Your task to perform on an android device: turn off notifications in google photos Image 0: 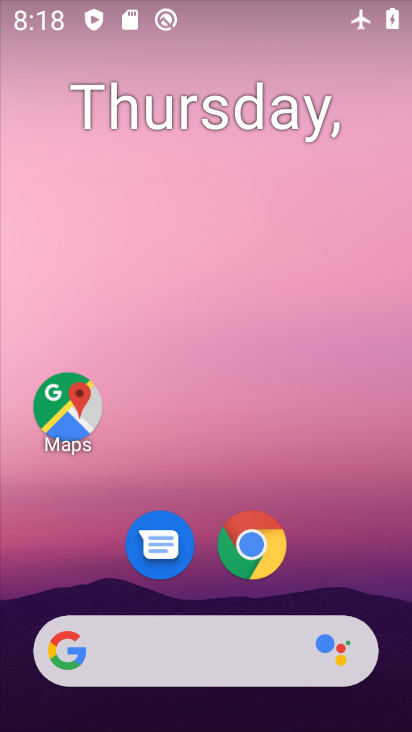
Step 0: drag from (200, 622) to (192, 289)
Your task to perform on an android device: turn off notifications in google photos Image 1: 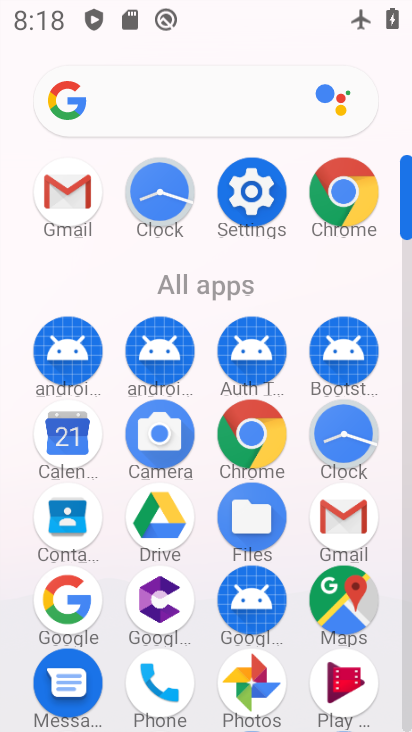
Step 1: click (255, 670)
Your task to perform on an android device: turn off notifications in google photos Image 2: 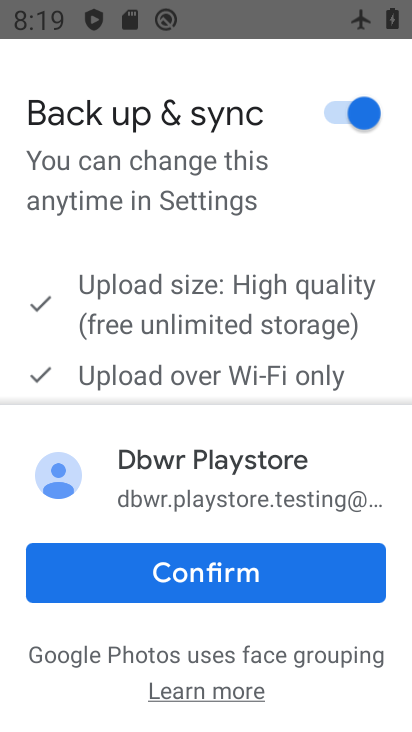
Step 2: click (238, 565)
Your task to perform on an android device: turn off notifications in google photos Image 3: 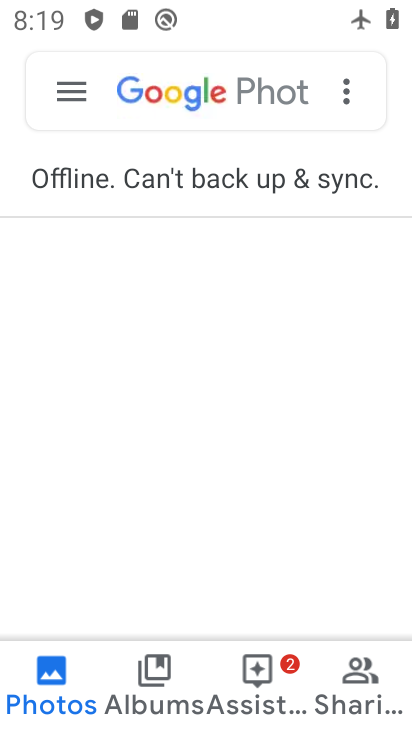
Step 3: click (70, 98)
Your task to perform on an android device: turn off notifications in google photos Image 4: 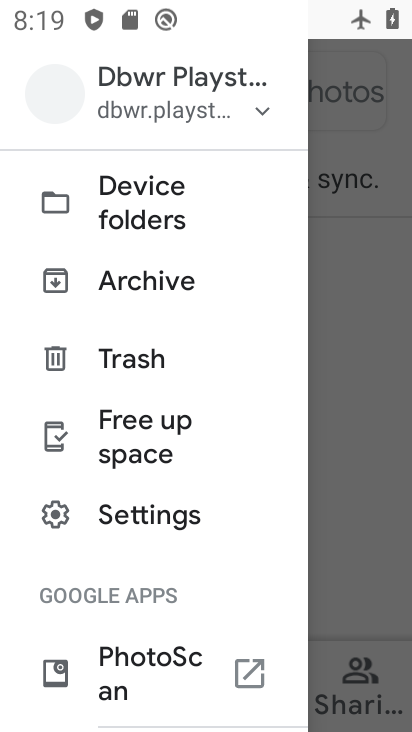
Step 4: click (150, 513)
Your task to perform on an android device: turn off notifications in google photos Image 5: 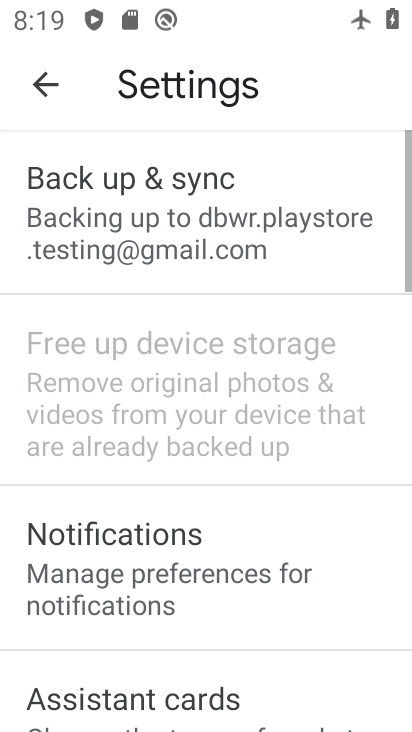
Step 5: click (166, 237)
Your task to perform on an android device: turn off notifications in google photos Image 6: 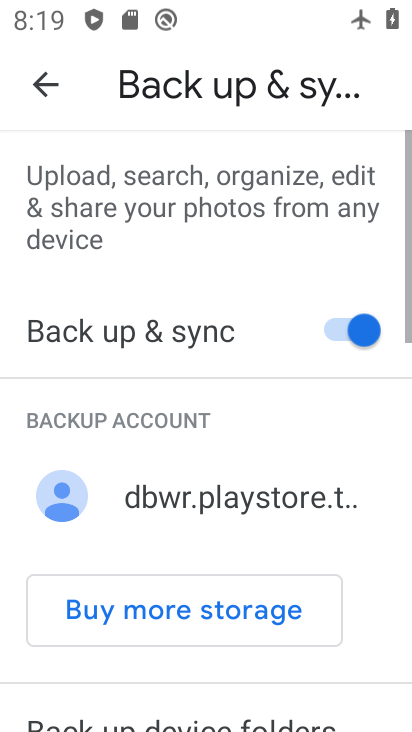
Step 6: click (57, 73)
Your task to perform on an android device: turn off notifications in google photos Image 7: 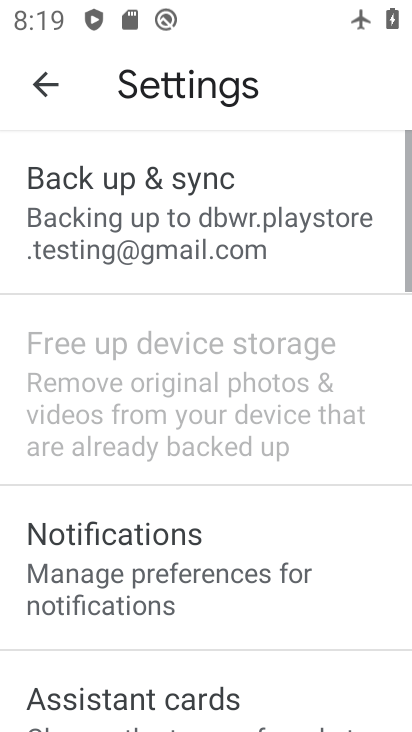
Step 7: click (127, 535)
Your task to perform on an android device: turn off notifications in google photos Image 8: 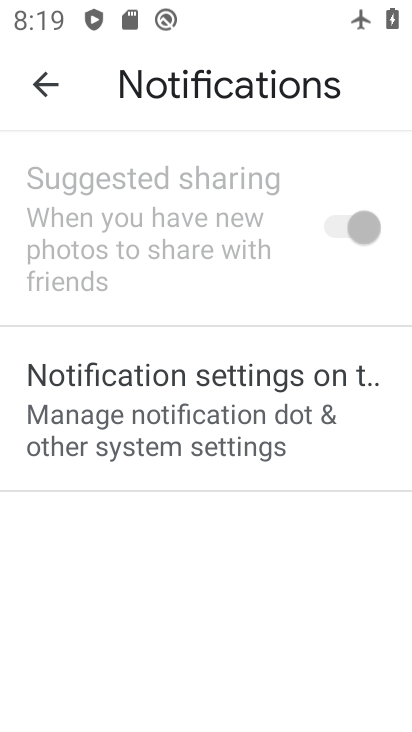
Step 8: click (185, 396)
Your task to perform on an android device: turn off notifications in google photos Image 9: 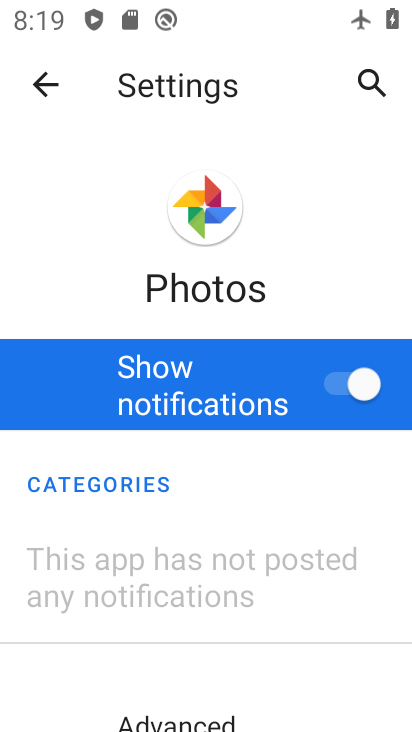
Step 9: click (353, 382)
Your task to perform on an android device: turn off notifications in google photos Image 10: 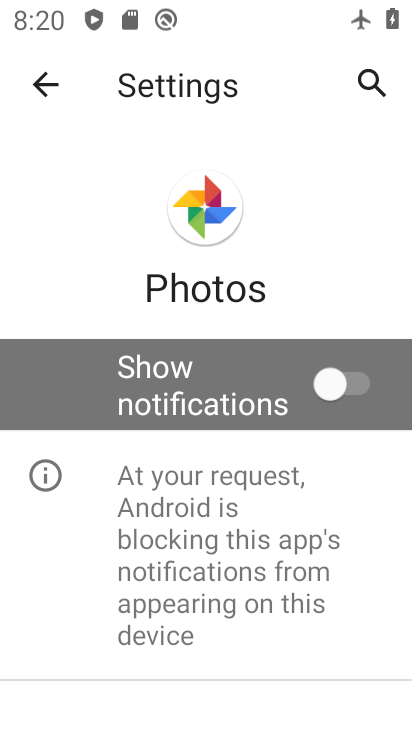
Step 10: task complete